Your task to perform on an android device: Find coffee shops on Maps Image 0: 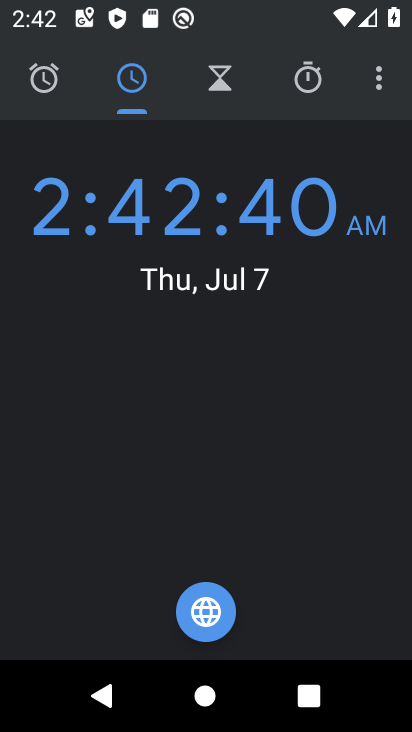
Step 0: press home button
Your task to perform on an android device: Find coffee shops on Maps Image 1: 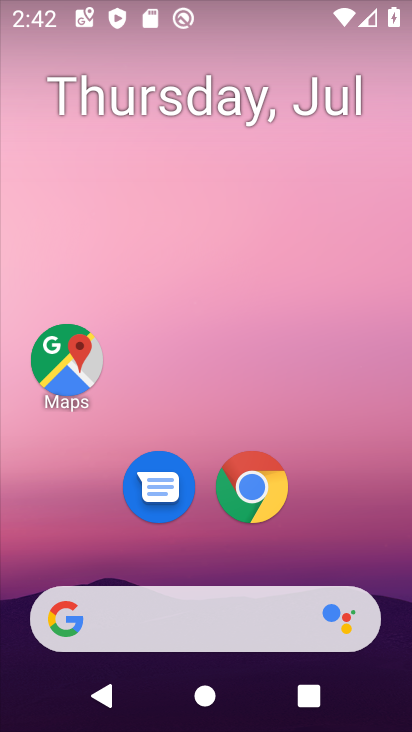
Step 1: drag from (349, 539) to (342, 133)
Your task to perform on an android device: Find coffee shops on Maps Image 2: 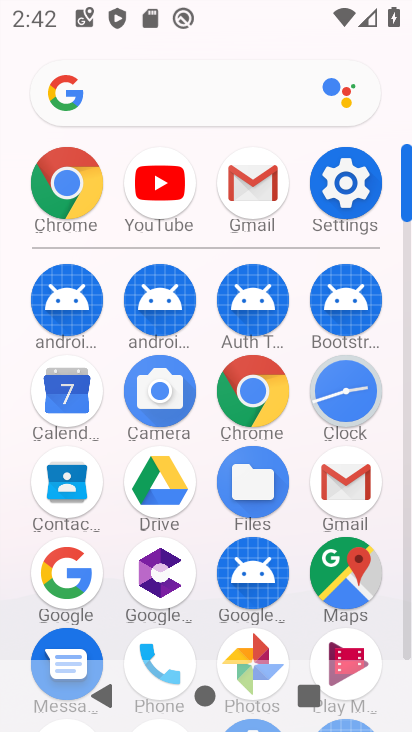
Step 2: click (343, 571)
Your task to perform on an android device: Find coffee shops on Maps Image 3: 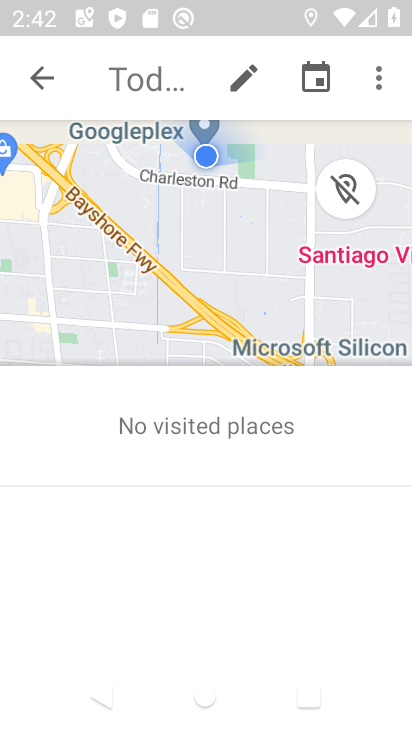
Step 3: press back button
Your task to perform on an android device: Find coffee shops on Maps Image 4: 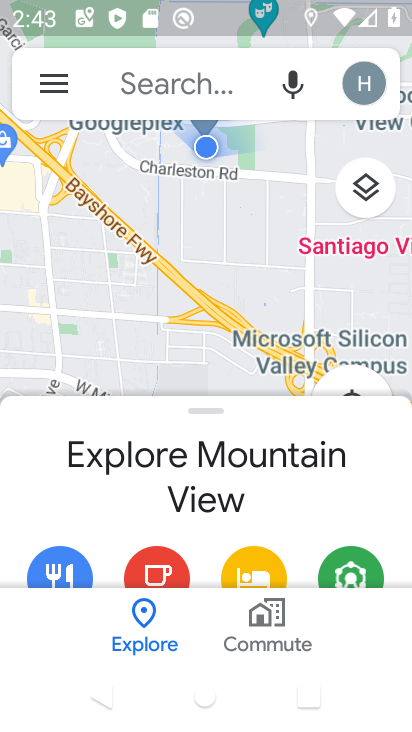
Step 4: click (223, 86)
Your task to perform on an android device: Find coffee shops on Maps Image 5: 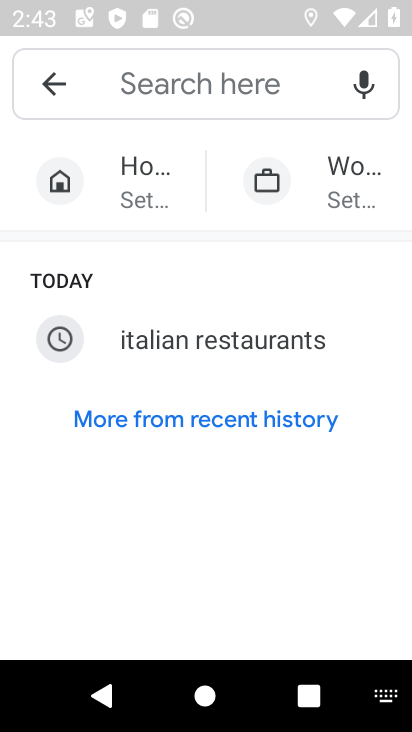
Step 5: type "coffee shps"
Your task to perform on an android device: Find coffee shops on Maps Image 6: 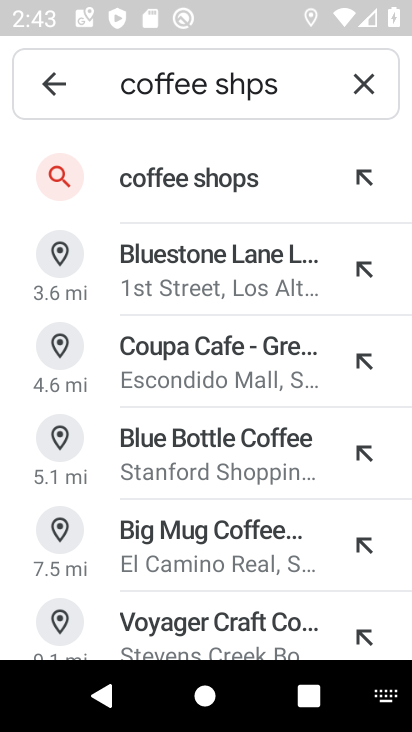
Step 6: click (202, 205)
Your task to perform on an android device: Find coffee shops on Maps Image 7: 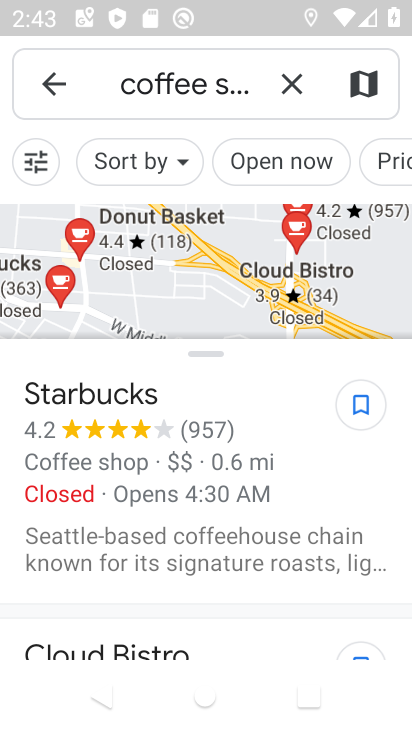
Step 7: task complete